Your task to perform on an android device: Open Google Chrome and click the shortcut for Amazon.com Image 0: 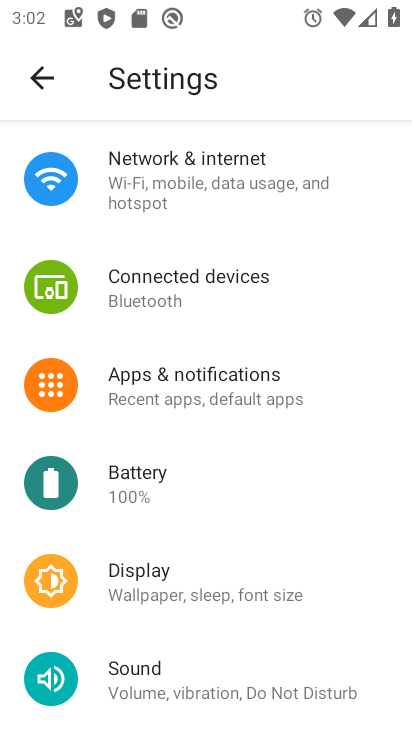
Step 0: press home button
Your task to perform on an android device: Open Google Chrome and click the shortcut for Amazon.com Image 1: 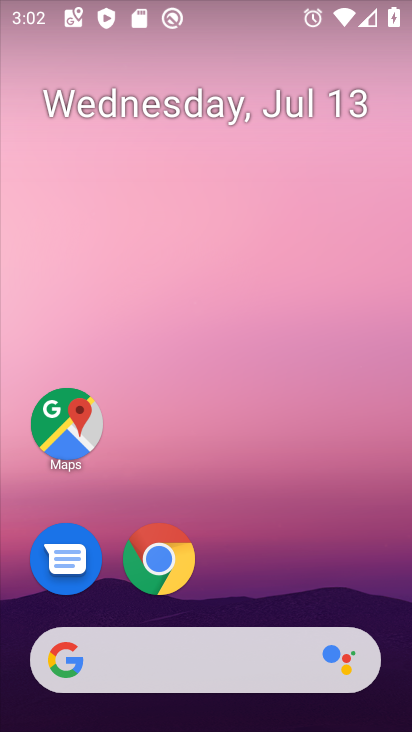
Step 1: drag from (338, 538) to (373, 220)
Your task to perform on an android device: Open Google Chrome and click the shortcut for Amazon.com Image 2: 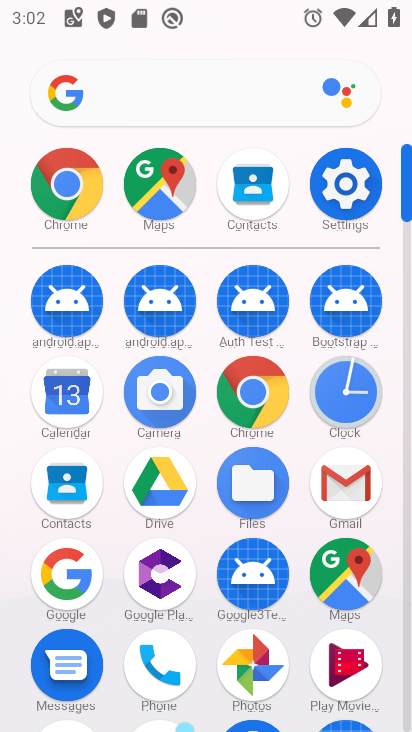
Step 2: click (254, 392)
Your task to perform on an android device: Open Google Chrome and click the shortcut for Amazon.com Image 3: 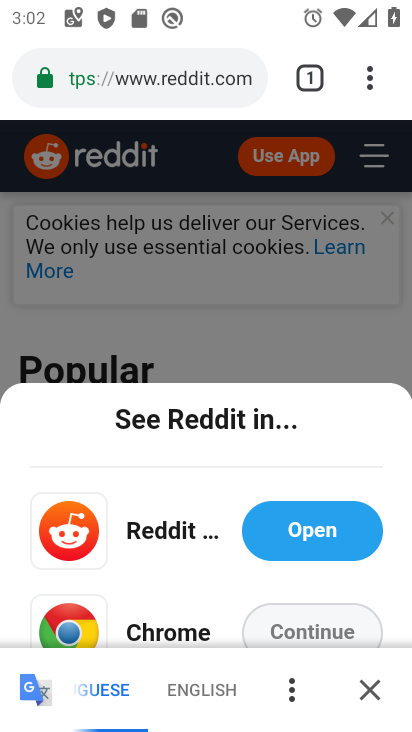
Step 3: press back button
Your task to perform on an android device: Open Google Chrome and click the shortcut for Amazon.com Image 4: 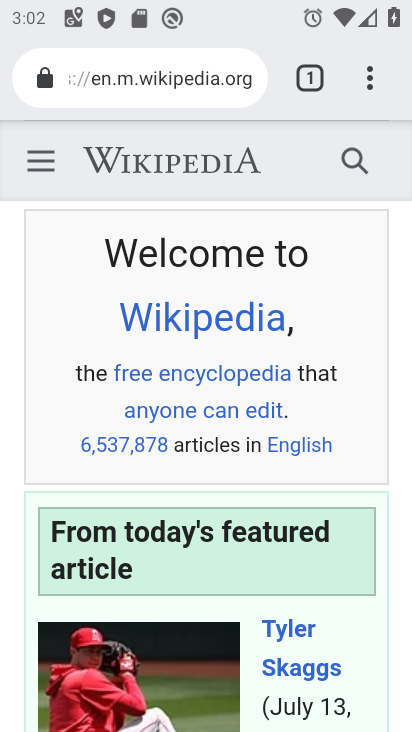
Step 4: press back button
Your task to perform on an android device: Open Google Chrome and click the shortcut for Amazon.com Image 5: 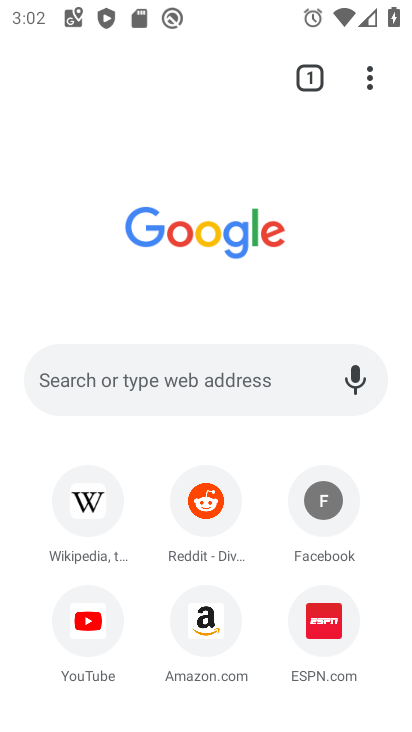
Step 5: click (229, 641)
Your task to perform on an android device: Open Google Chrome and click the shortcut for Amazon.com Image 6: 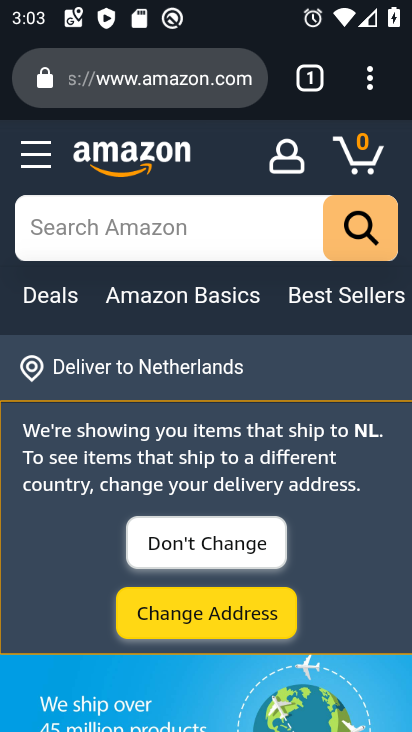
Step 6: task complete